Your task to perform on an android device: Go to internet settings Image 0: 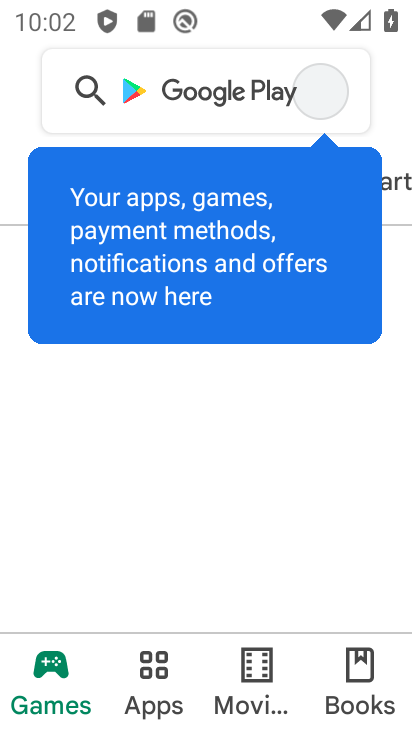
Step 0: press home button
Your task to perform on an android device: Go to internet settings Image 1: 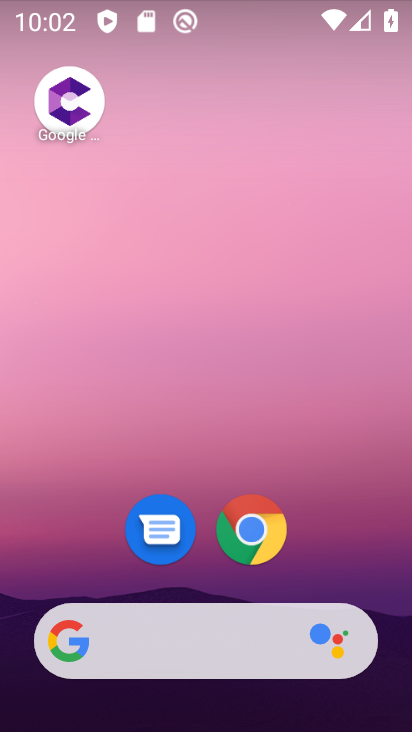
Step 1: drag from (311, 557) to (315, 0)
Your task to perform on an android device: Go to internet settings Image 2: 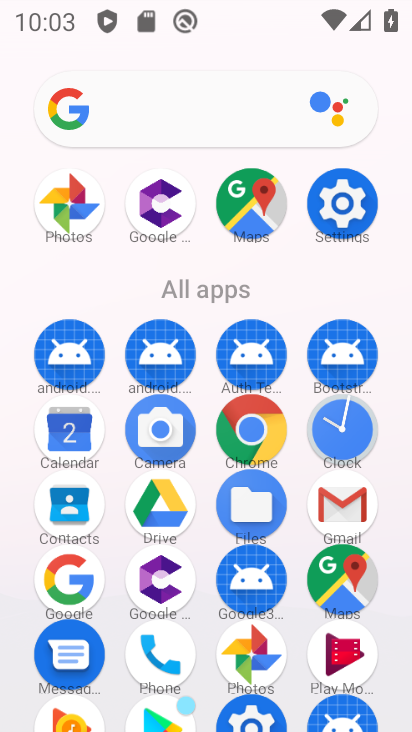
Step 2: click (341, 198)
Your task to perform on an android device: Go to internet settings Image 3: 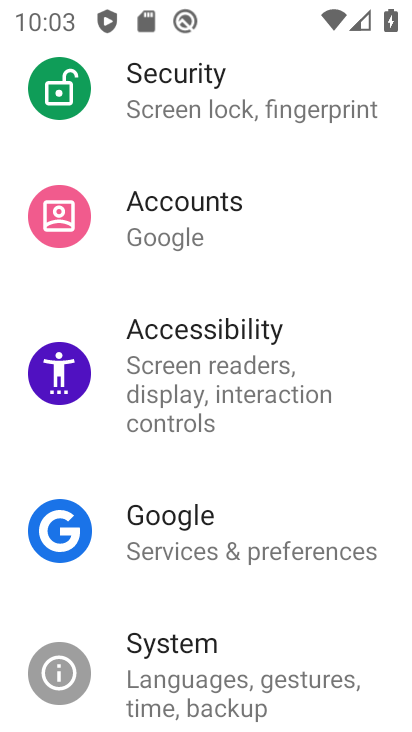
Step 3: drag from (194, 312) to (265, 547)
Your task to perform on an android device: Go to internet settings Image 4: 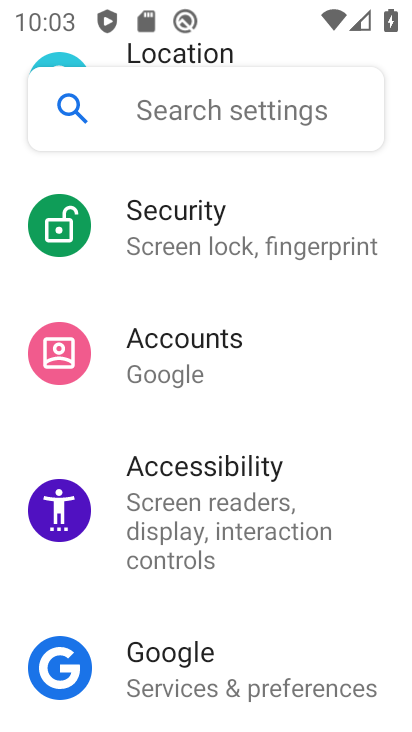
Step 4: drag from (265, 273) to (279, 589)
Your task to perform on an android device: Go to internet settings Image 5: 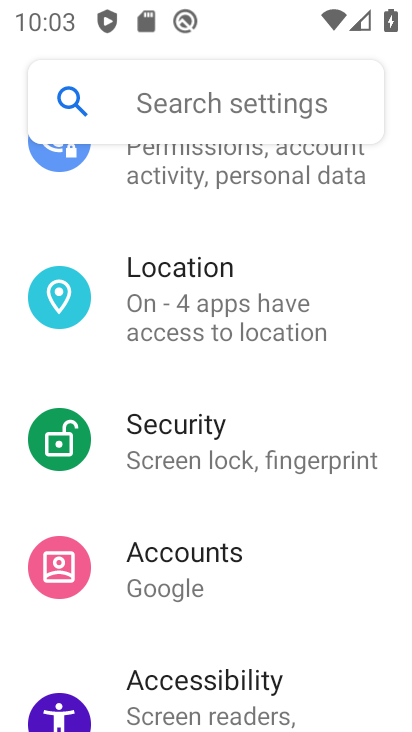
Step 5: drag from (263, 432) to (262, 731)
Your task to perform on an android device: Go to internet settings Image 6: 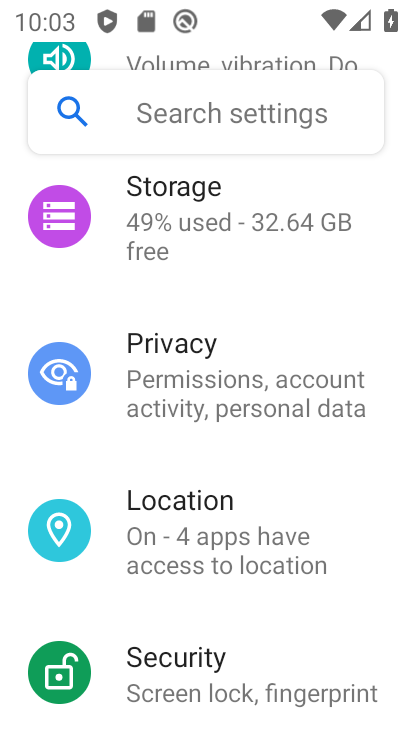
Step 6: drag from (231, 300) to (275, 731)
Your task to perform on an android device: Go to internet settings Image 7: 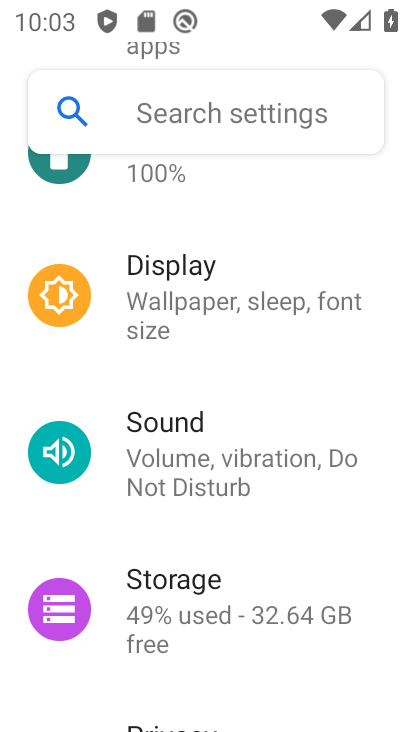
Step 7: drag from (242, 299) to (259, 731)
Your task to perform on an android device: Go to internet settings Image 8: 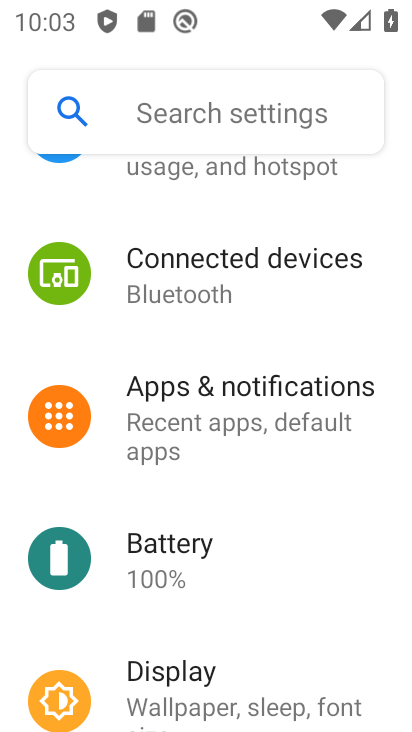
Step 8: drag from (262, 352) to (223, 715)
Your task to perform on an android device: Go to internet settings Image 9: 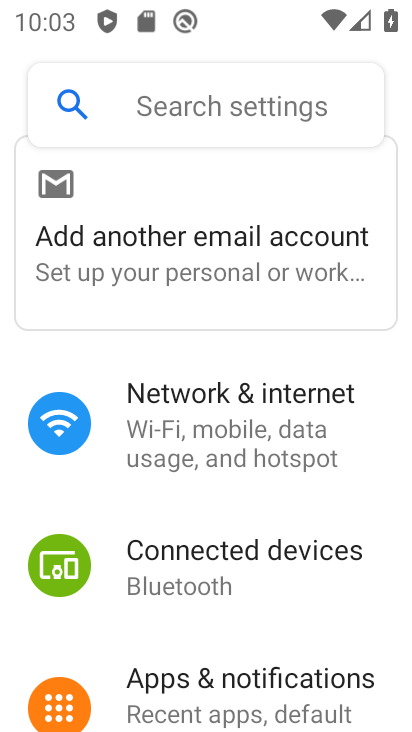
Step 9: click (235, 458)
Your task to perform on an android device: Go to internet settings Image 10: 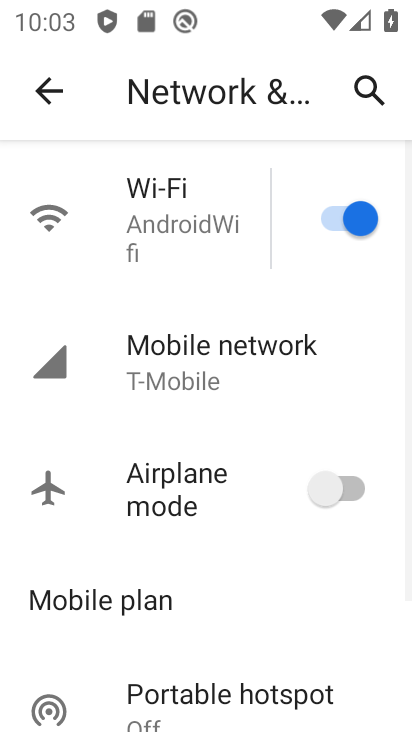
Step 10: click (188, 358)
Your task to perform on an android device: Go to internet settings Image 11: 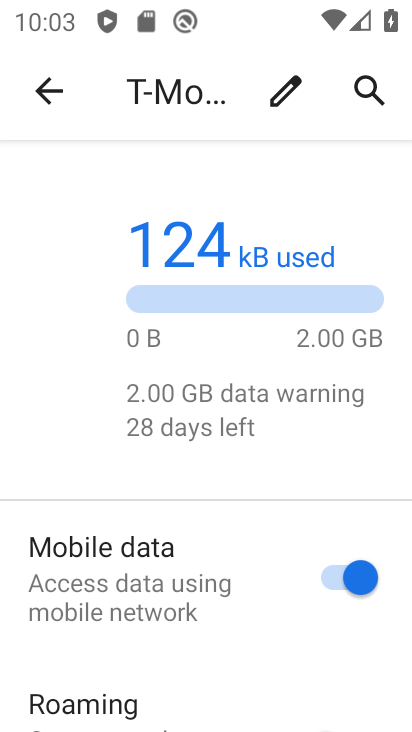
Step 11: task complete